Your task to perform on an android device: Go to Android settings Image 0: 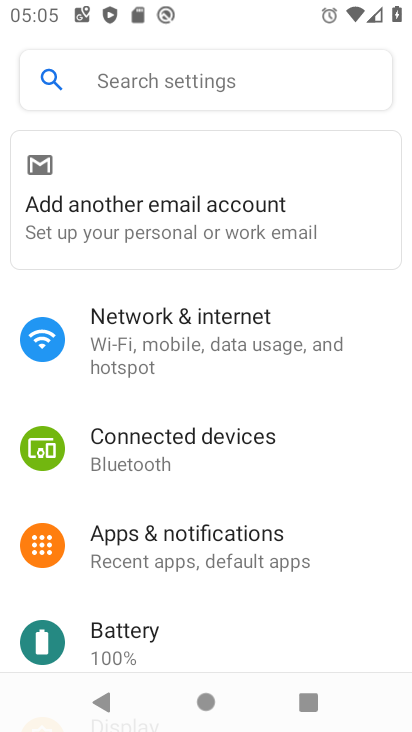
Step 0: drag from (327, 613) to (324, 167)
Your task to perform on an android device: Go to Android settings Image 1: 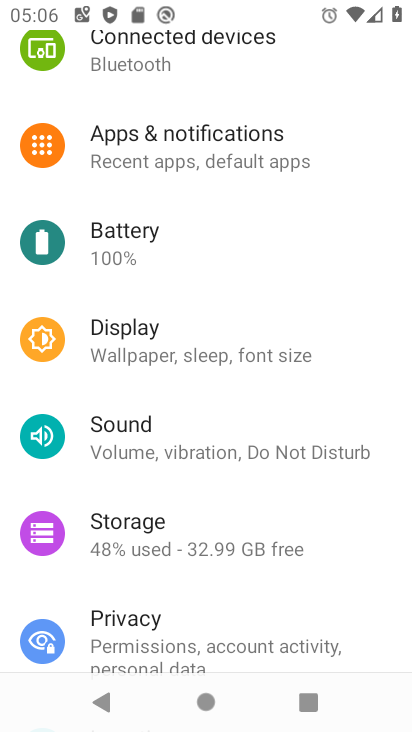
Step 1: task complete